Your task to perform on an android device: Open privacy settings Image 0: 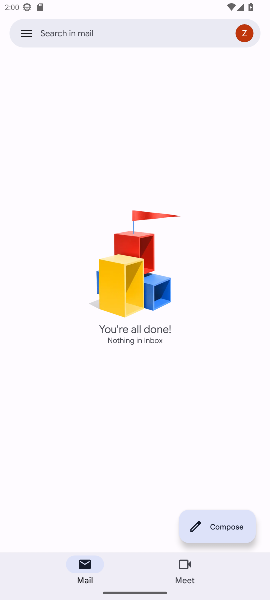
Step 0: press home button
Your task to perform on an android device: Open privacy settings Image 1: 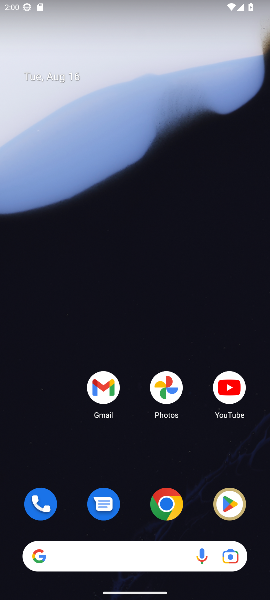
Step 1: drag from (135, 484) to (157, 98)
Your task to perform on an android device: Open privacy settings Image 2: 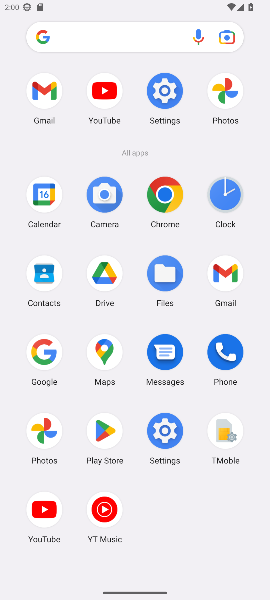
Step 2: click (164, 91)
Your task to perform on an android device: Open privacy settings Image 3: 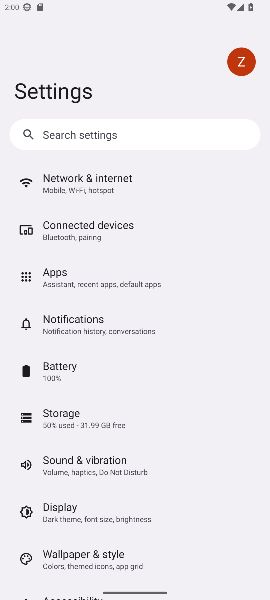
Step 3: drag from (171, 487) to (182, 300)
Your task to perform on an android device: Open privacy settings Image 4: 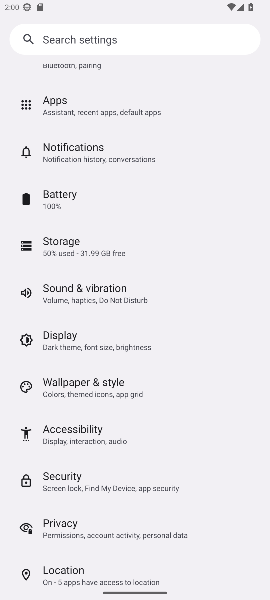
Step 4: click (57, 524)
Your task to perform on an android device: Open privacy settings Image 5: 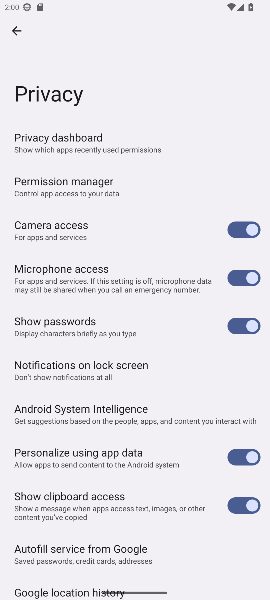
Step 5: task complete